Your task to perform on an android device: Go to internet settings Image 0: 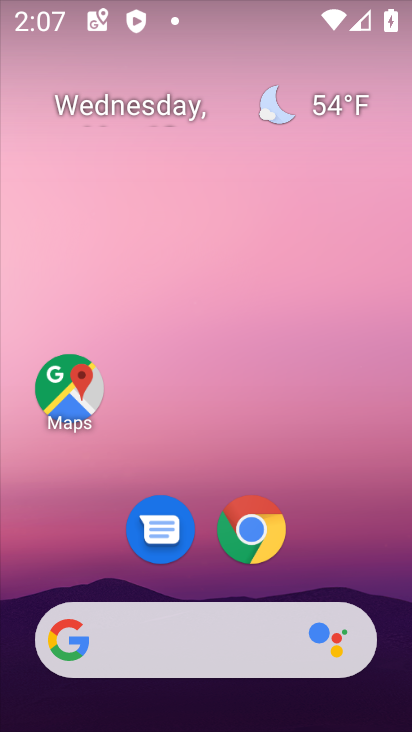
Step 0: drag from (158, 534) to (242, 58)
Your task to perform on an android device: Go to internet settings Image 1: 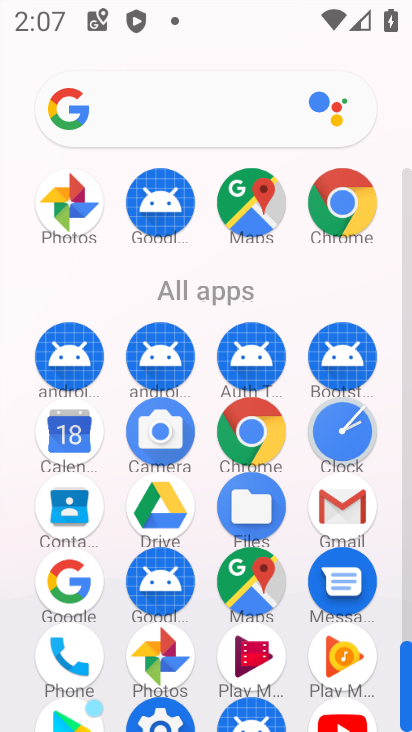
Step 1: click (170, 710)
Your task to perform on an android device: Go to internet settings Image 2: 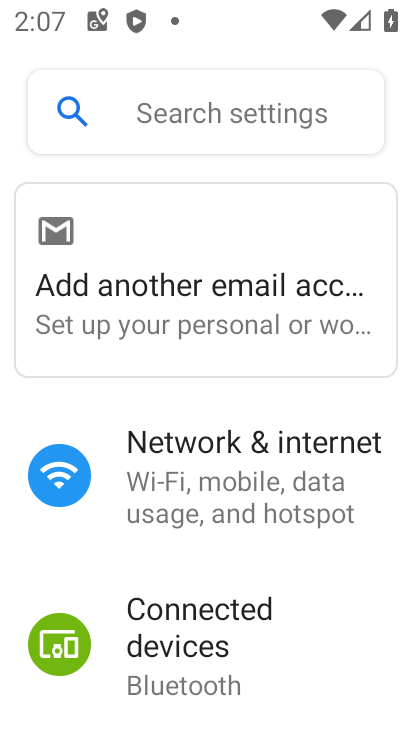
Step 2: click (192, 406)
Your task to perform on an android device: Go to internet settings Image 3: 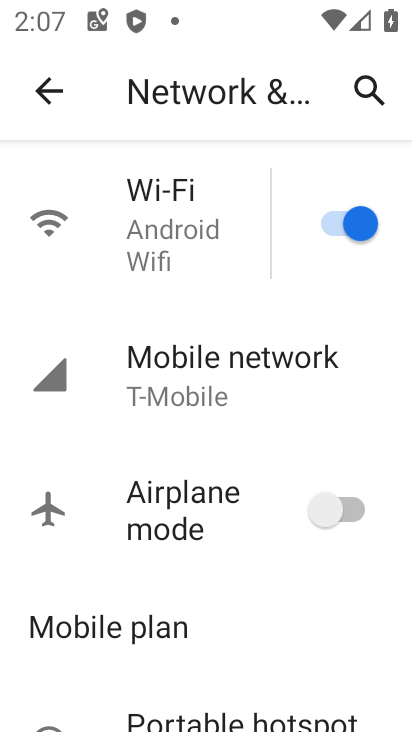
Step 3: task complete